Your task to perform on an android device: Go to privacy settings Image 0: 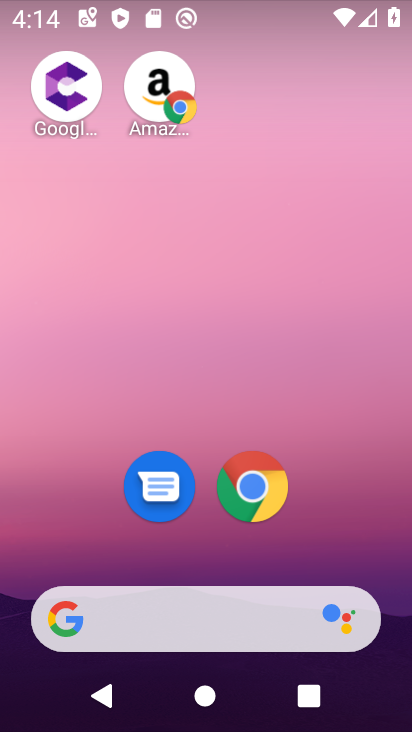
Step 0: drag from (397, 617) to (269, 41)
Your task to perform on an android device: Go to privacy settings Image 1: 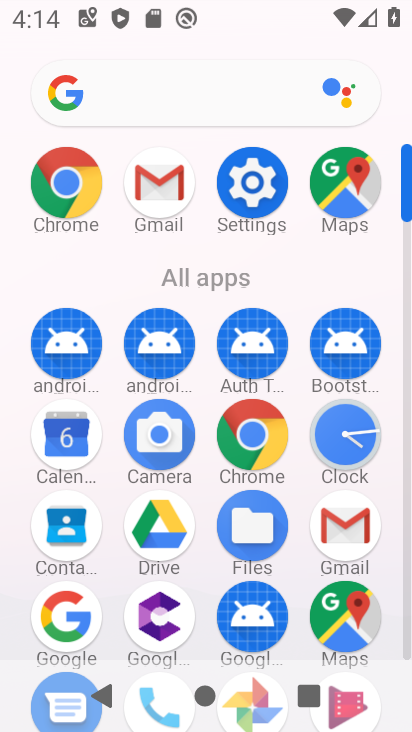
Step 1: drag from (1, 547) to (4, 167)
Your task to perform on an android device: Go to privacy settings Image 2: 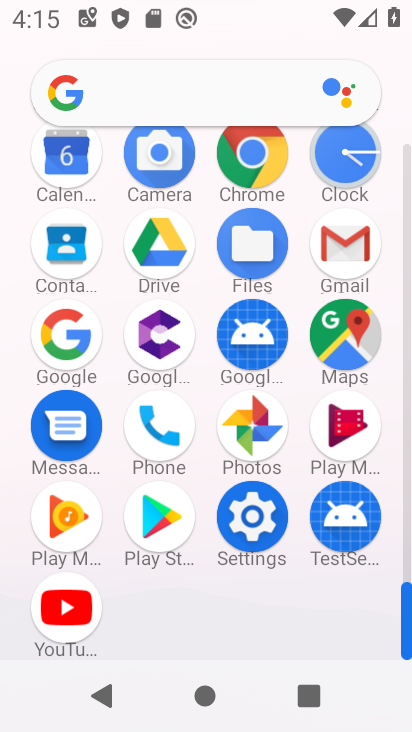
Step 2: click (253, 148)
Your task to perform on an android device: Go to privacy settings Image 3: 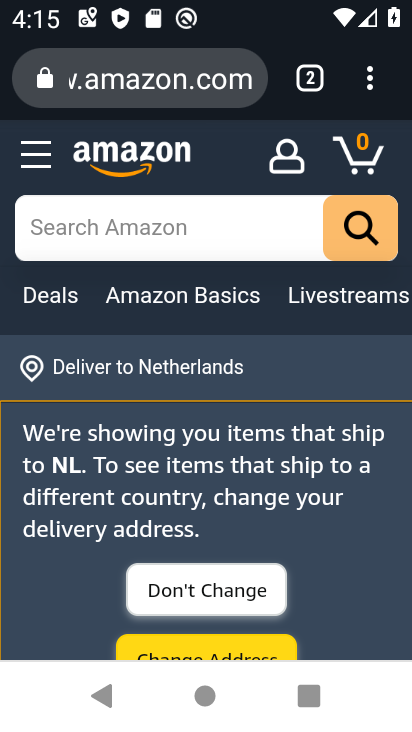
Step 3: drag from (368, 71) to (162, 552)
Your task to perform on an android device: Go to privacy settings Image 4: 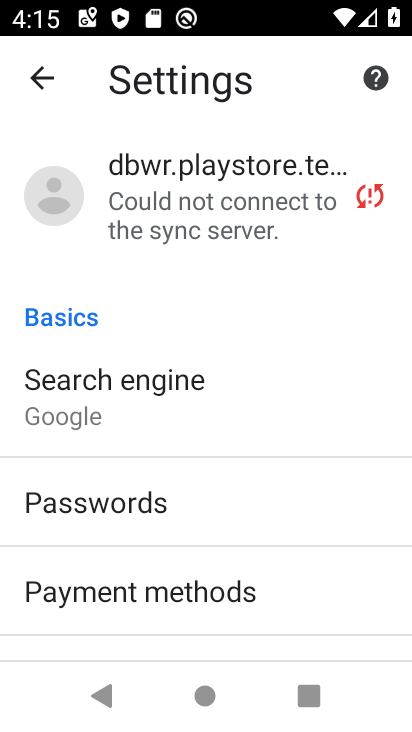
Step 4: drag from (278, 559) to (255, 204)
Your task to perform on an android device: Go to privacy settings Image 5: 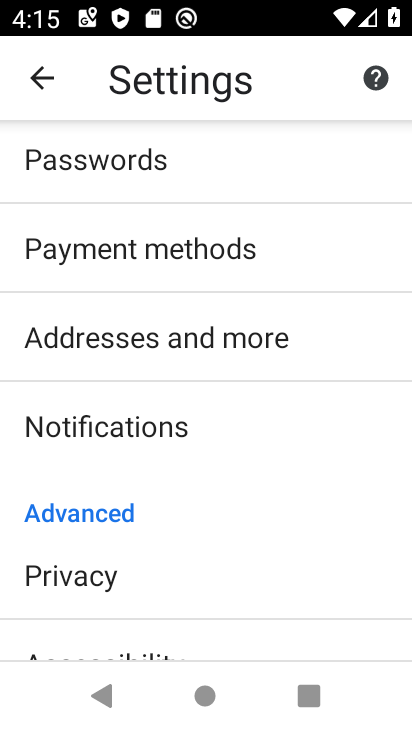
Step 5: click (133, 578)
Your task to perform on an android device: Go to privacy settings Image 6: 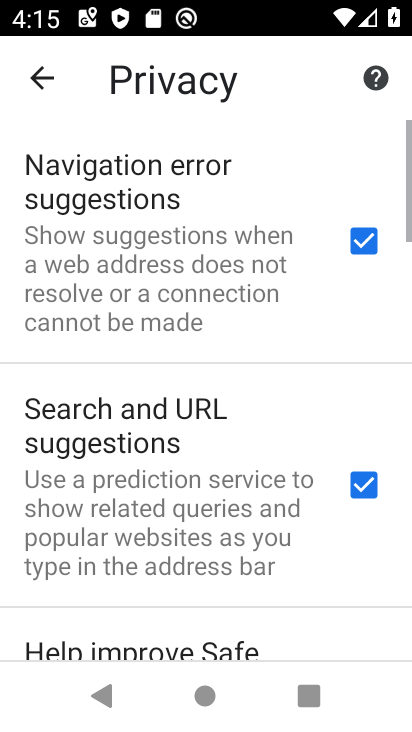
Step 6: task complete